Your task to perform on an android device: Go to Android settings Image 0: 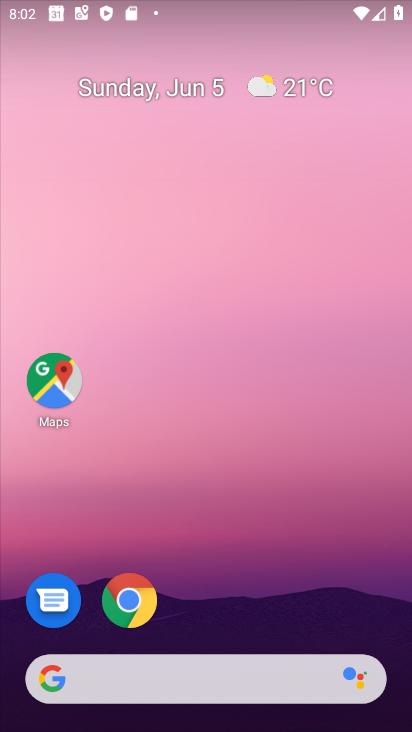
Step 0: drag from (138, 726) to (179, 57)
Your task to perform on an android device: Go to Android settings Image 1: 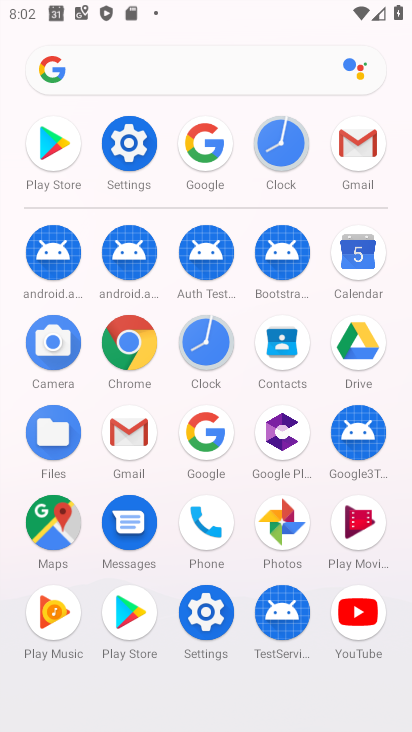
Step 1: click (107, 149)
Your task to perform on an android device: Go to Android settings Image 2: 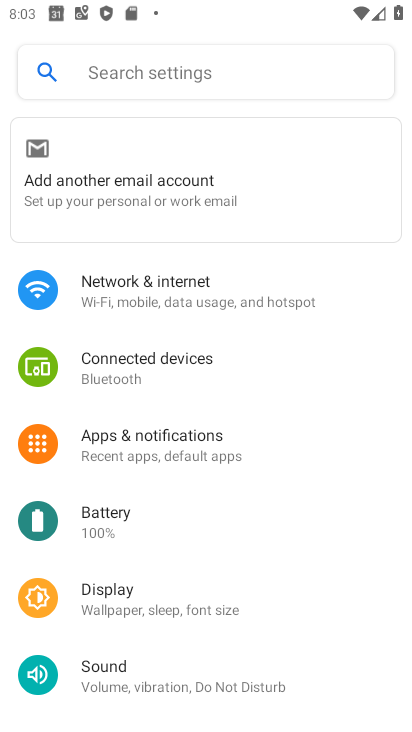
Step 2: task complete